Your task to perform on an android device: set the stopwatch Image 0: 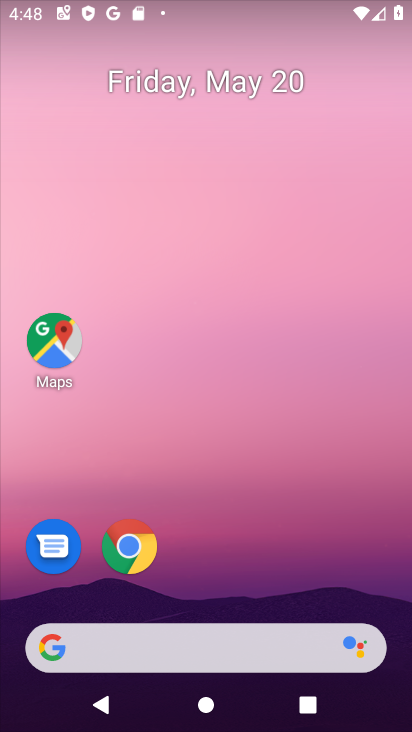
Step 0: drag from (232, 570) to (204, 109)
Your task to perform on an android device: set the stopwatch Image 1: 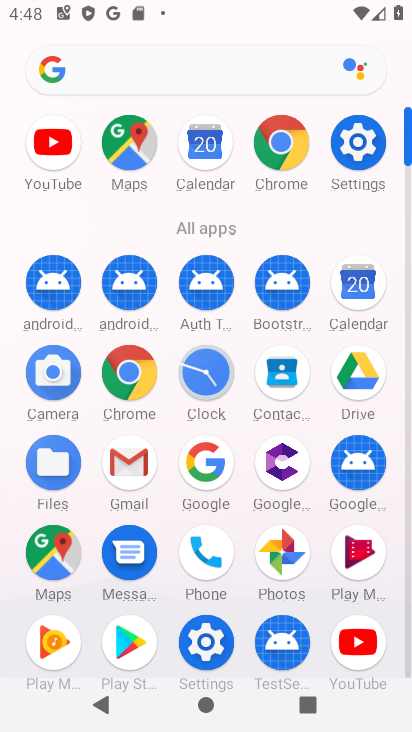
Step 1: click (206, 371)
Your task to perform on an android device: set the stopwatch Image 2: 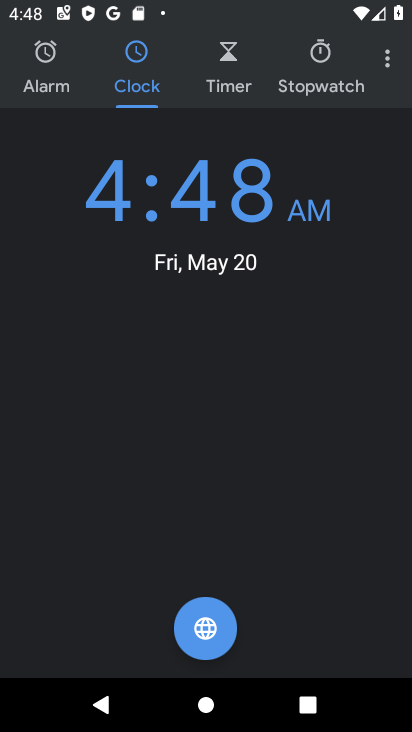
Step 2: click (320, 56)
Your task to perform on an android device: set the stopwatch Image 3: 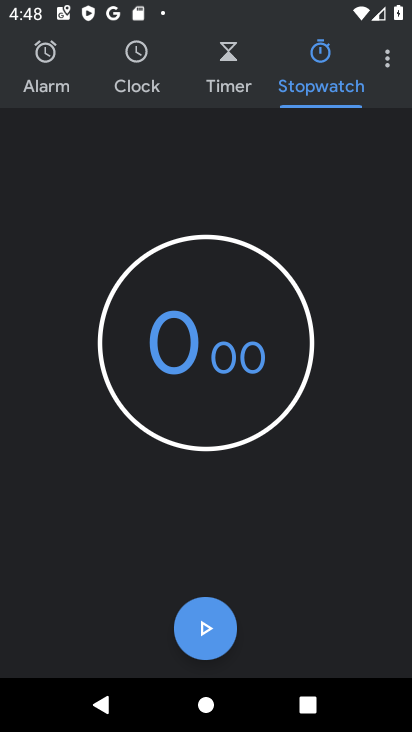
Step 3: click (217, 347)
Your task to perform on an android device: set the stopwatch Image 4: 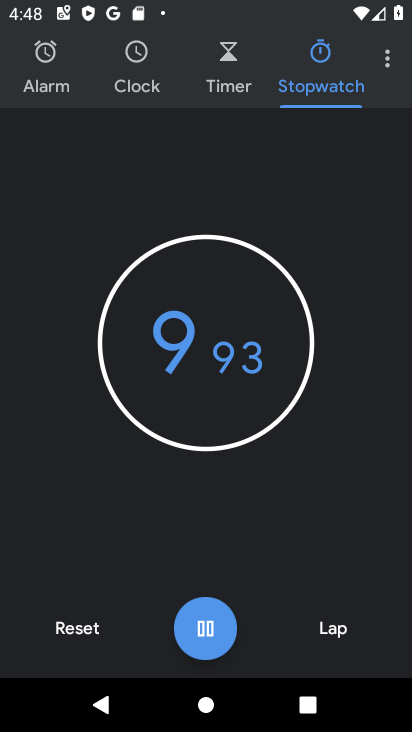
Step 4: click (217, 347)
Your task to perform on an android device: set the stopwatch Image 5: 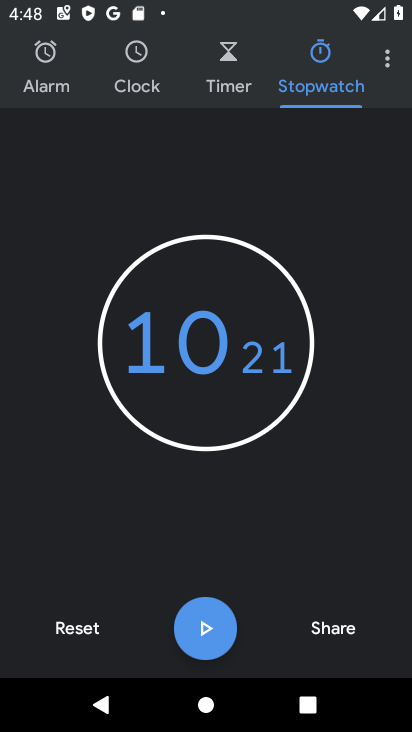
Step 5: task complete